Your task to perform on an android device: turn off location history Image 0: 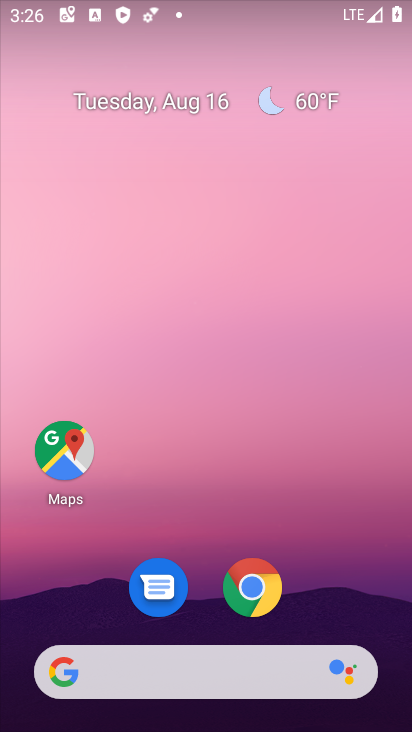
Step 0: drag from (113, 525) to (205, 32)
Your task to perform on an android device: turn off location history Image 1: 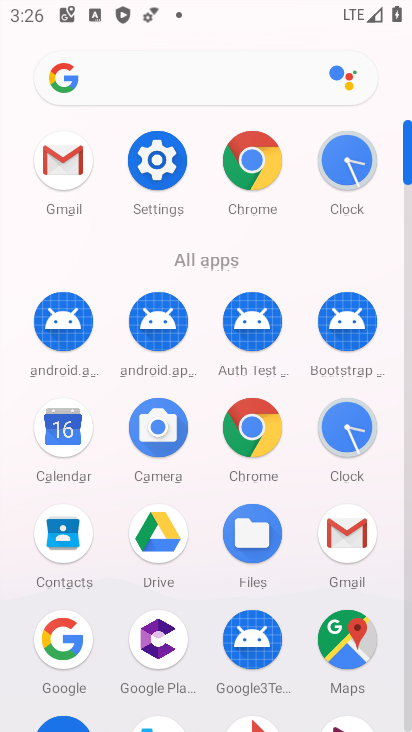
Step 1: click (158, 158)
Your task to perform on an android device: turn off location history Image 2: 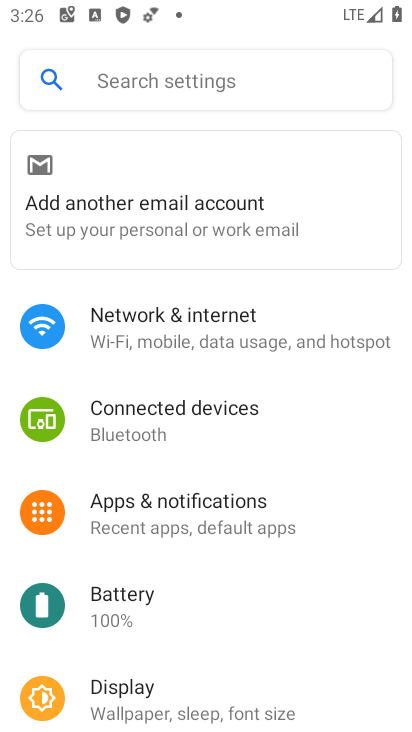
Step 2: drag from (205, 649) to (310, 85)
Your task to perform on an android device: turn off location history Image 3: 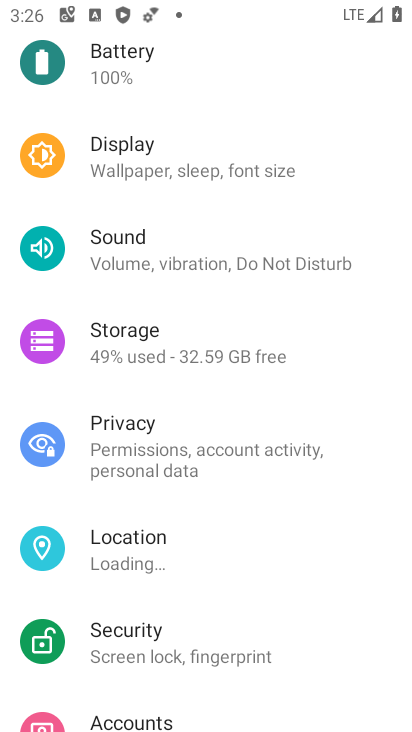
Step 3: click (171, 537)
Your task to perform on an android device: turn off location history Image 4: 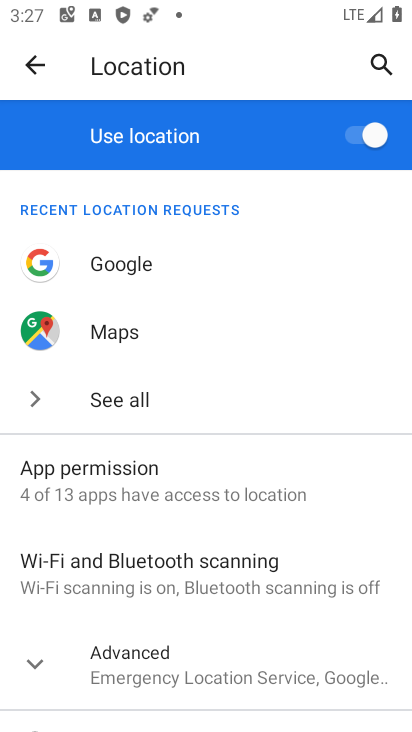
Step 4: click (182, 661)
Your task to perform on an android device: turn off location history Image 5: 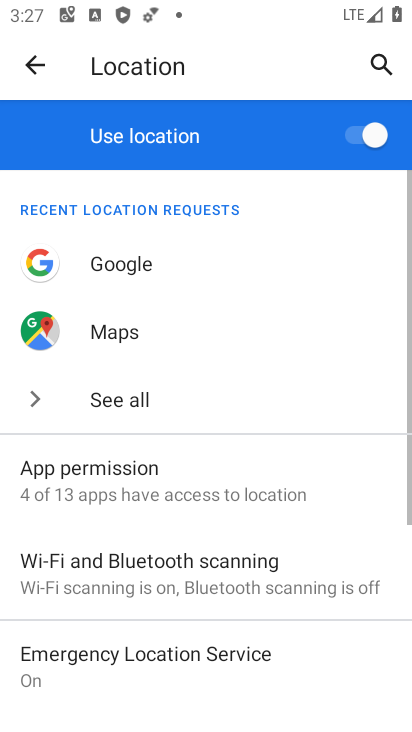
Step 5: drag from (186, 650) to (241, 201)
Your task to perform on an android device: turn off location history Image 6: 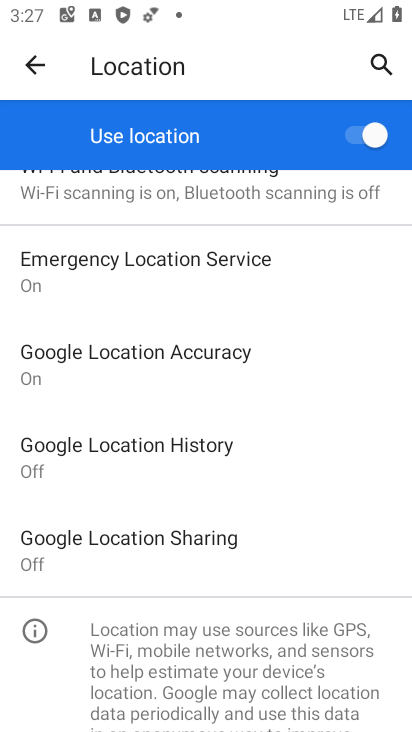
Step 6: click (108, 455)
Your task to perform on an android device: turn off location history Image 7: 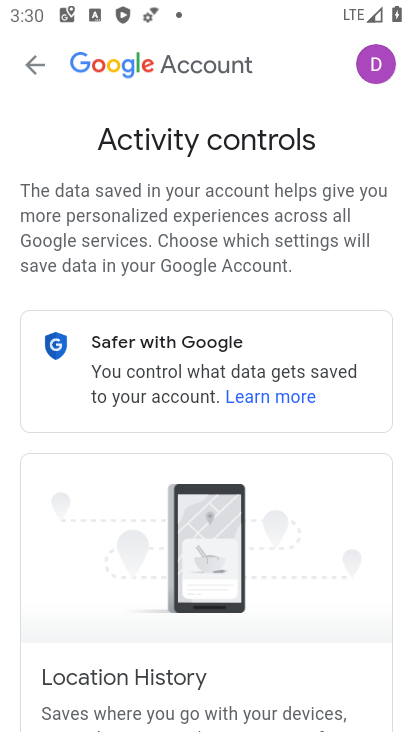
Step 7: task complete